Your task to perform on an android device: Empty the shopping cart on ebay.com. Add alienware aurora to the cart on ebay.com Image 0: 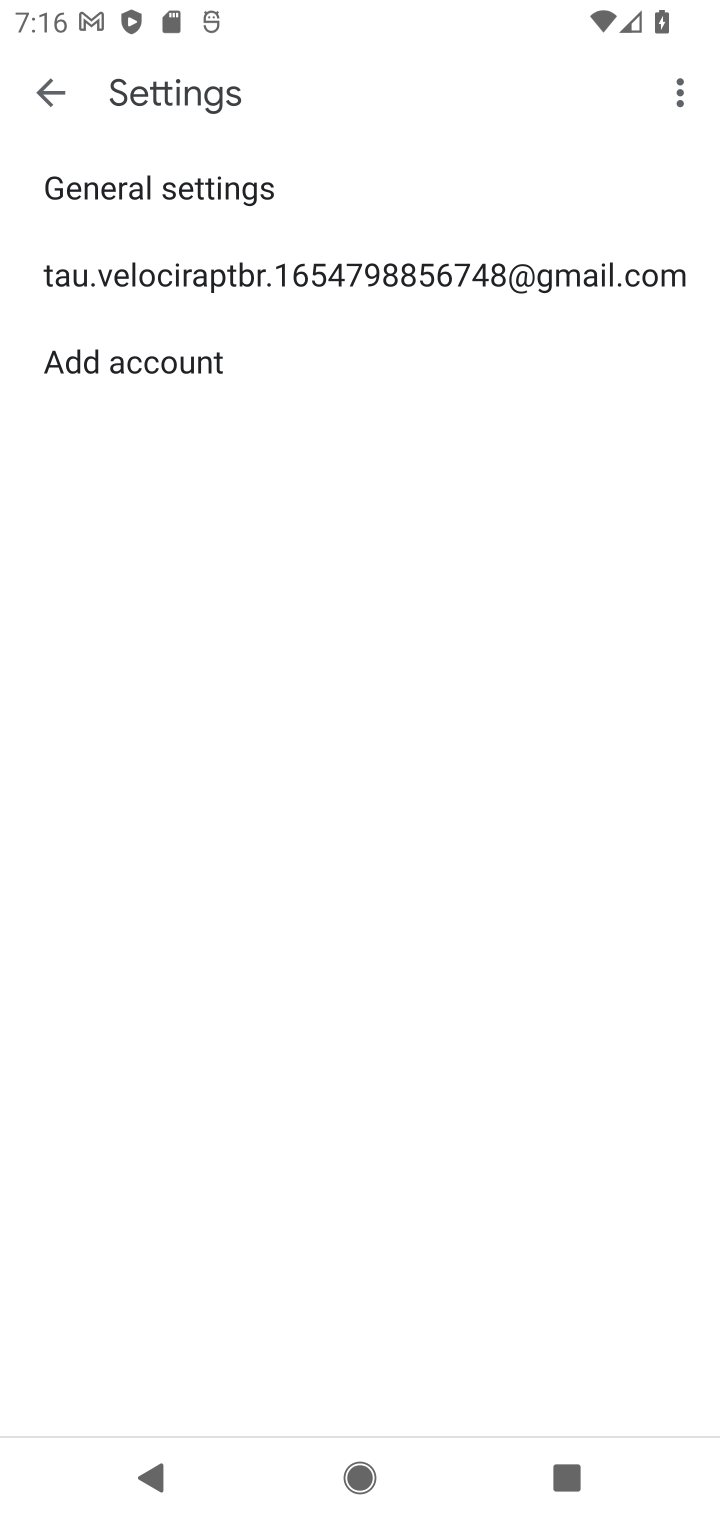
Step 0: press home button
Your task to perform on an android device: Empty the shopping cart on ebay.com. Add alienware aurora to the cart on ebay.com Image 1: 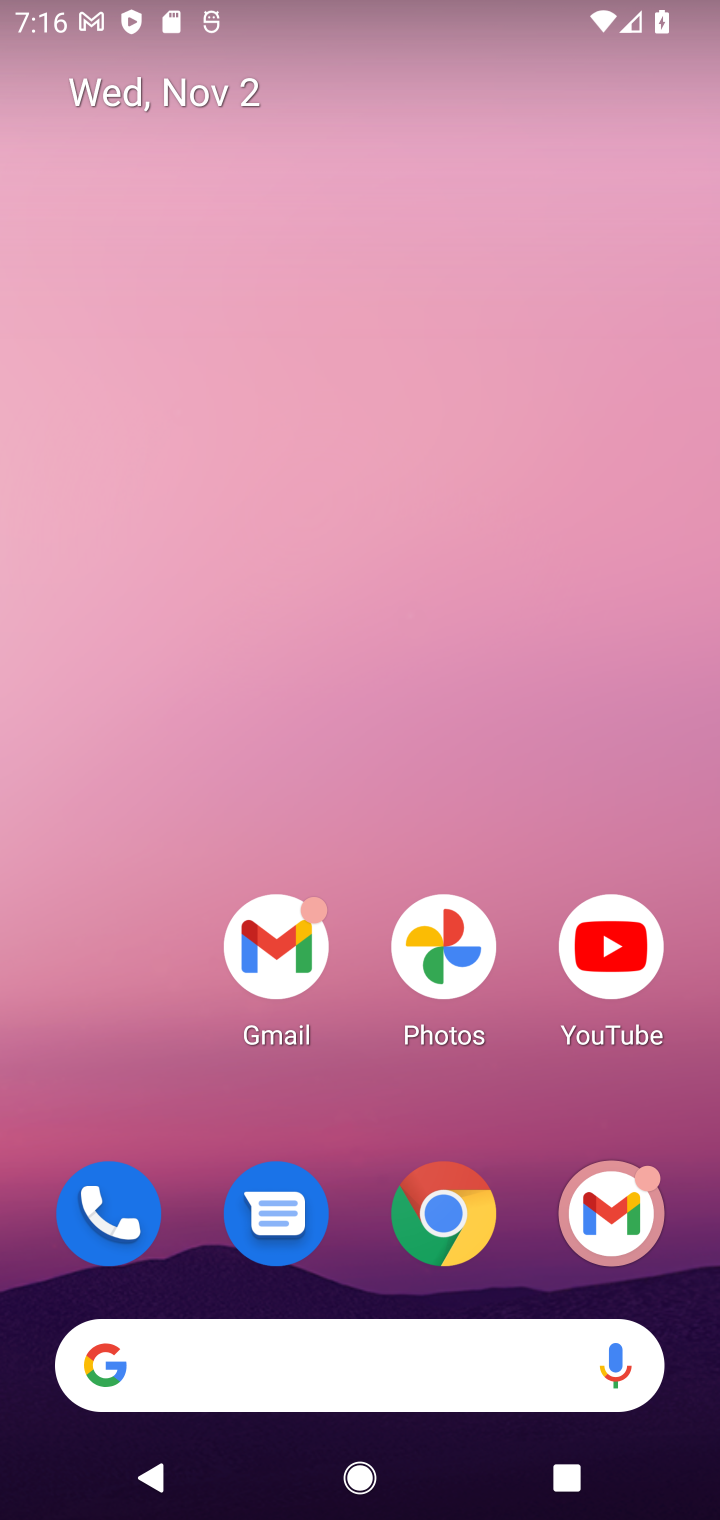
Step 1: click (442, 1221)
Your task to perform on an android device: Empty the shopping cart on ebay.com. Add alienware aurora to the cart on ebay.com Image 2: 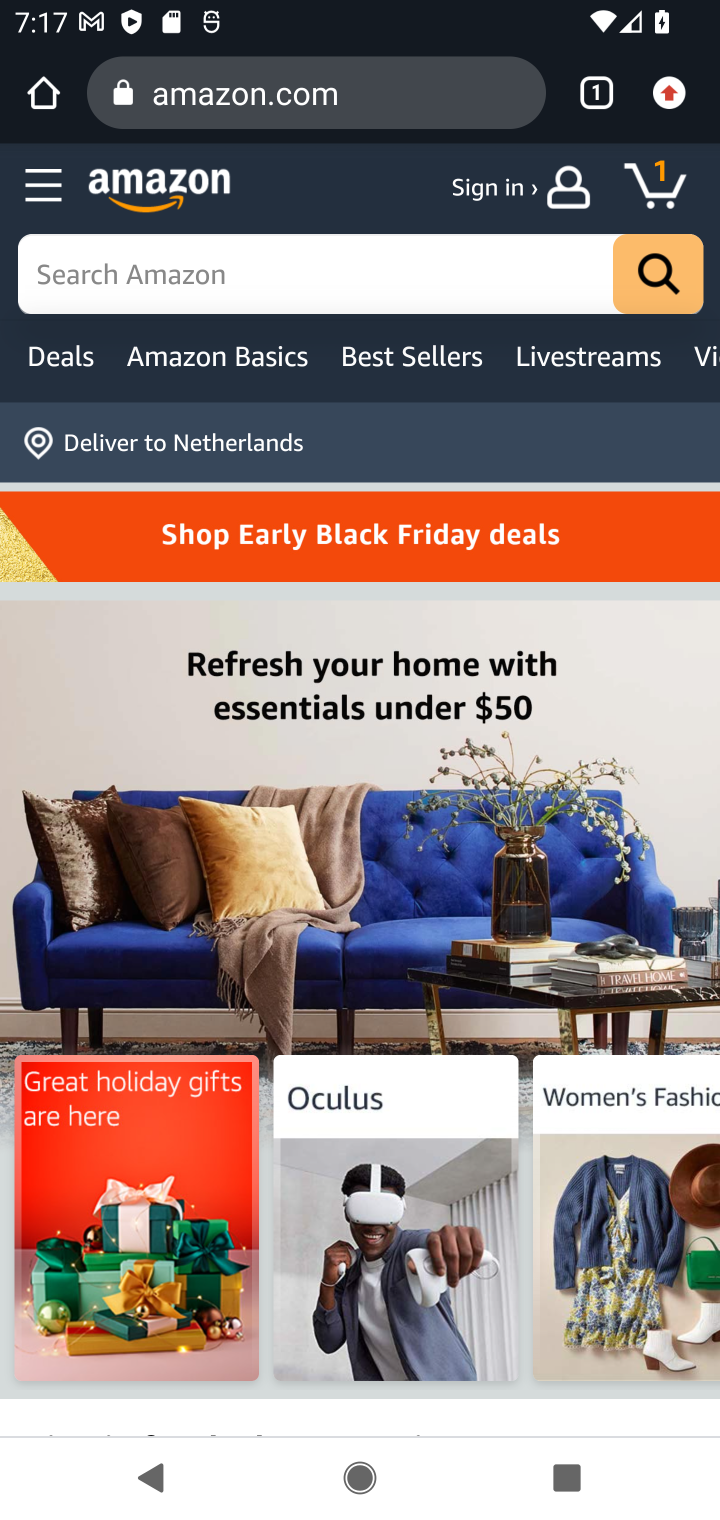
Step 2: click (366, 69)
Your task to perform on an android device: Empty the shopping cart on ebay.com. Add alienware aurora to the cart on ebay.com Image 3: 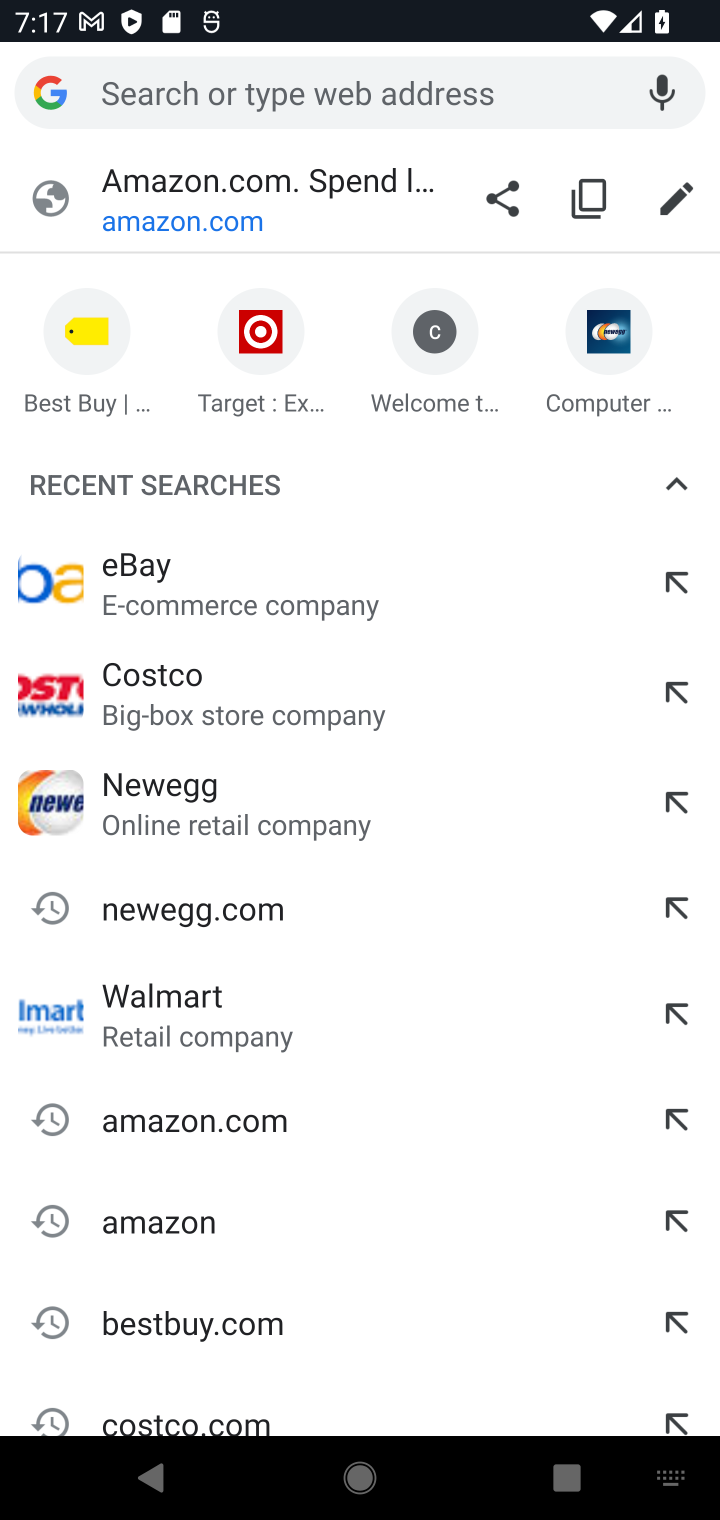
Step 3: type "ebay.com"
Your task to perform on an android device: Empty the shopping cart on ebay.com. Add alienware aurora to the cart on ebay.com Image 4: 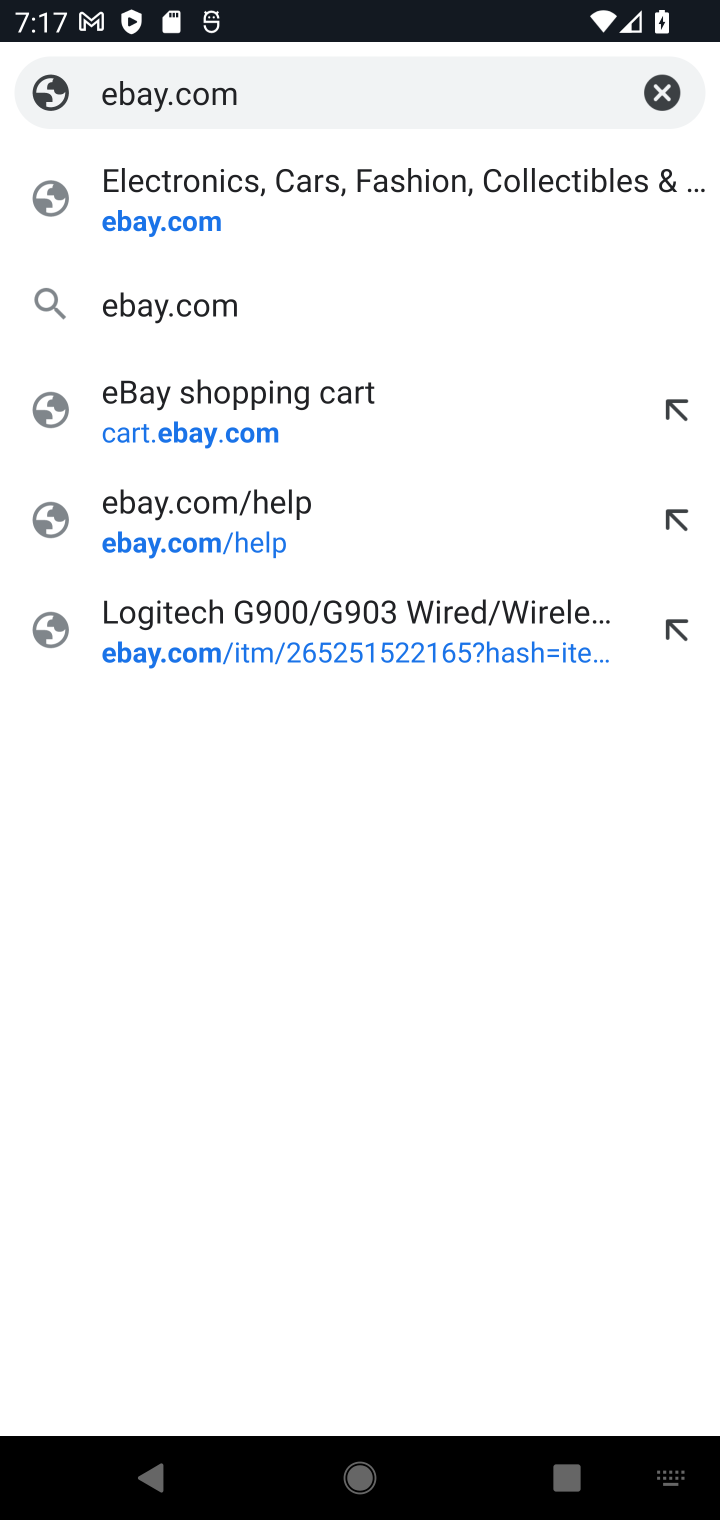
Step 4: click (175, 201)
Your task to perform on an android device: Empty the shopping cart on ebay.com. Add alienware aurora to the cart on ebay.com Image 5: 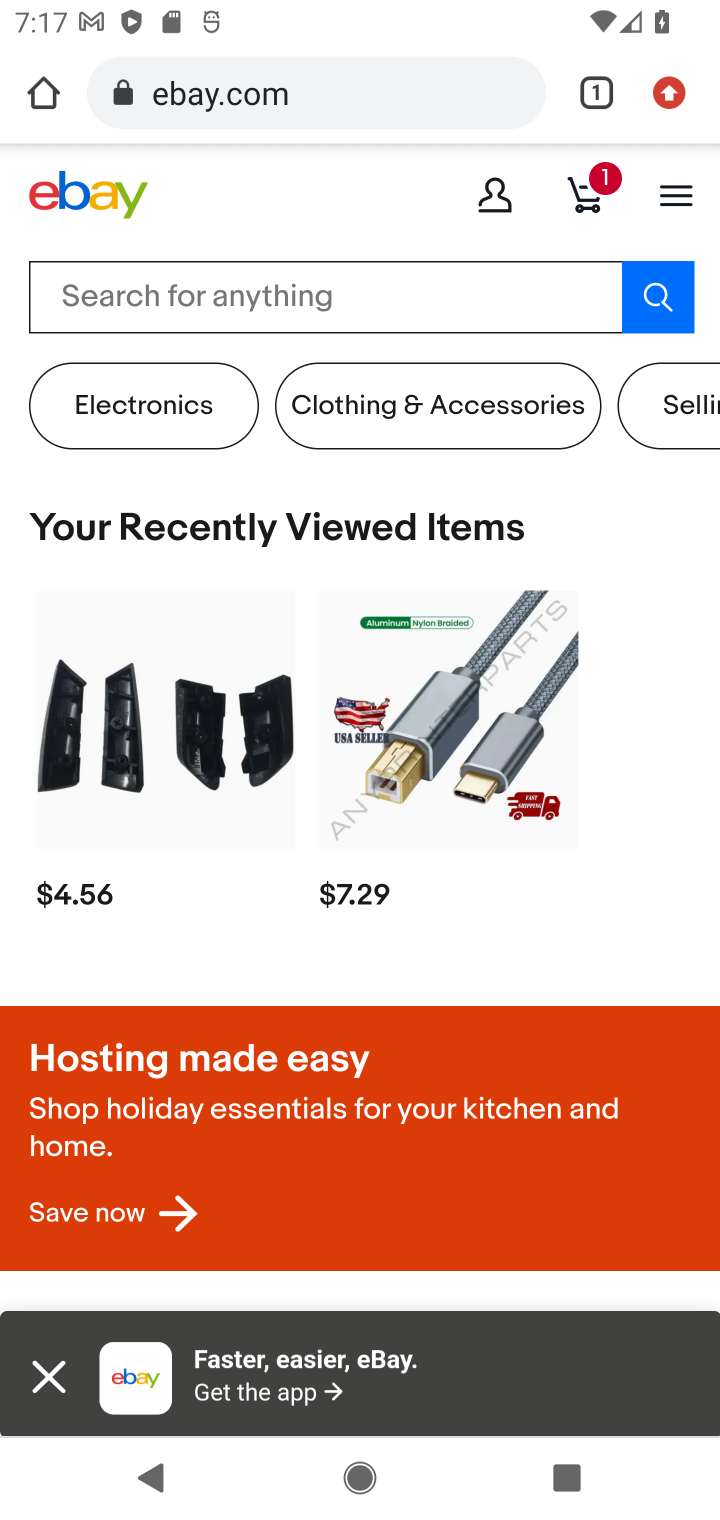
Step 5: click (591, 190)
Your task to perform on an android device: Empty the shopping cart on ebay.com. Add alienware aurora to the cart on ebay.com Image 6: 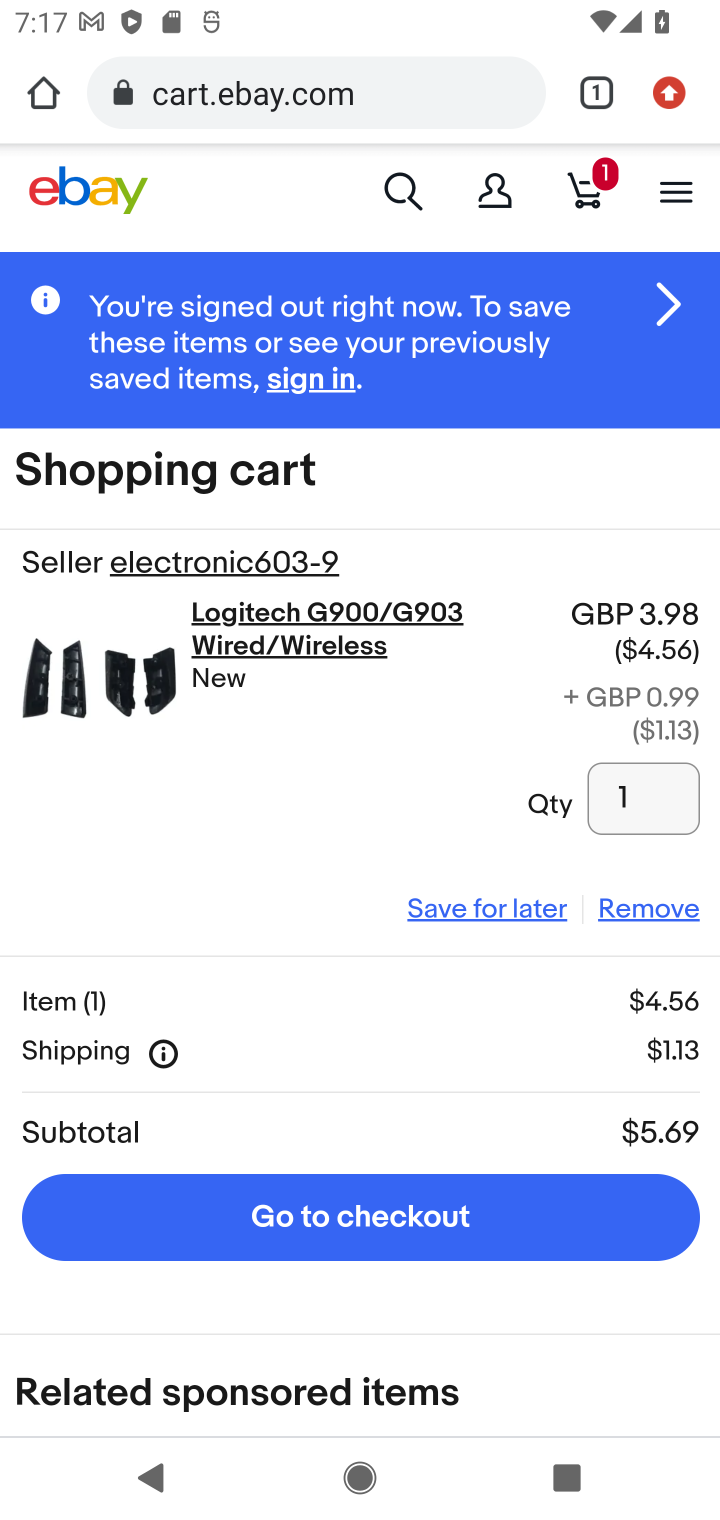
Step 6: click (630, 903)
Your task to perform on an android device: Empty the shopping cart on ebay.com. Add alienware aurora to the cart on ebay.com Image 7: 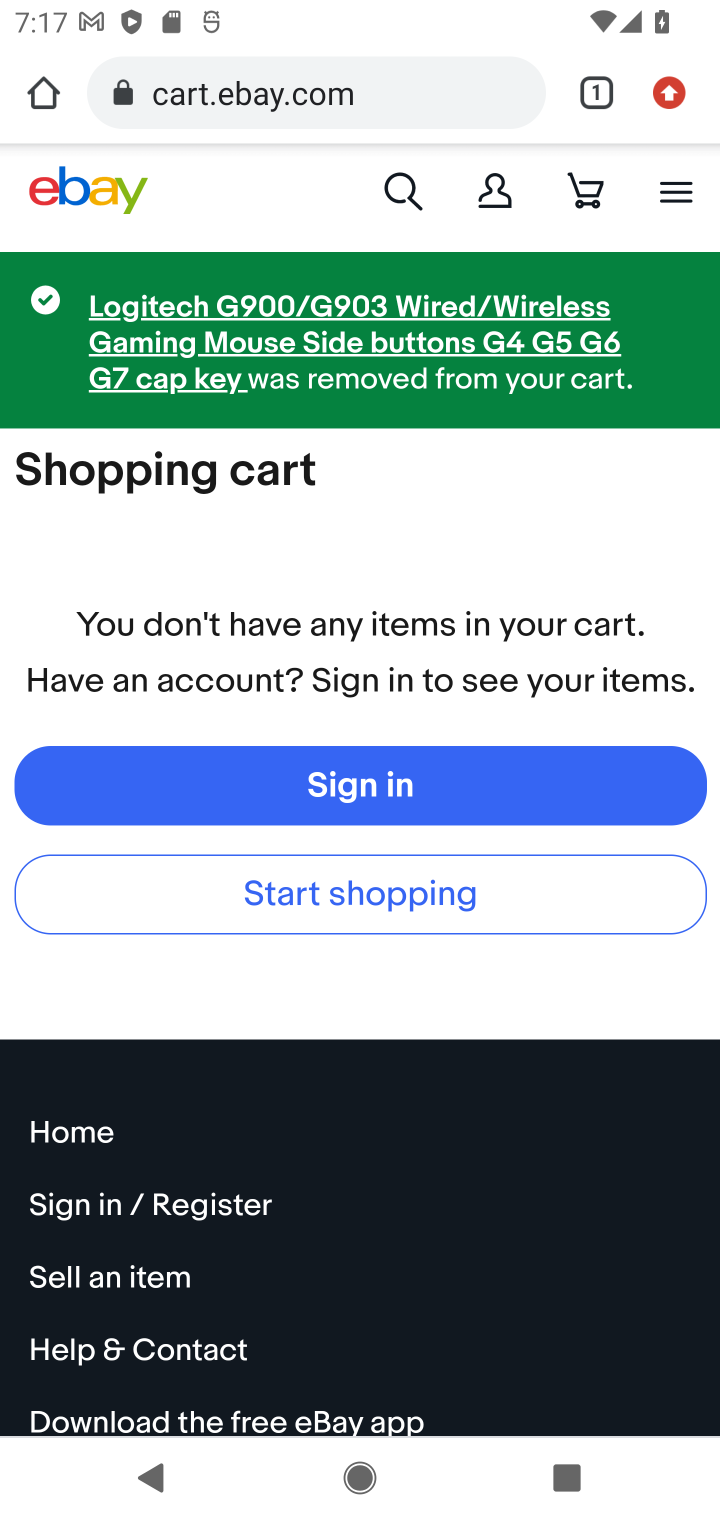
Step 7: click (386, 899)
Your task to perform on an android device: Empty the shopping cart on ebay.com. Add alienware aurora to the cart on ebay.com Image 8: 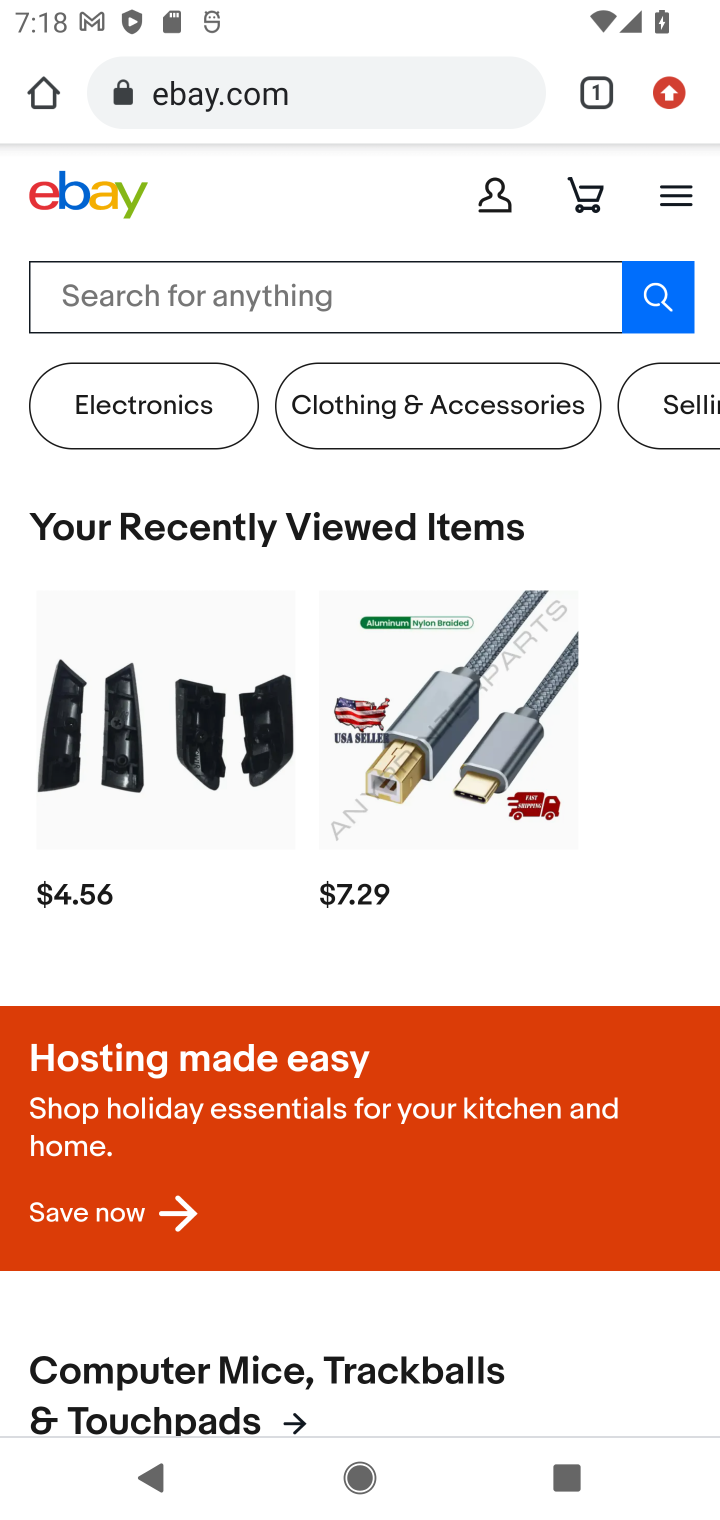
Step 8: click (166, 297)
Your task to perform on an android device: Empty the shopping cart on ebay.com. Add alienware aurora to the cart on ebay.com Image 9: 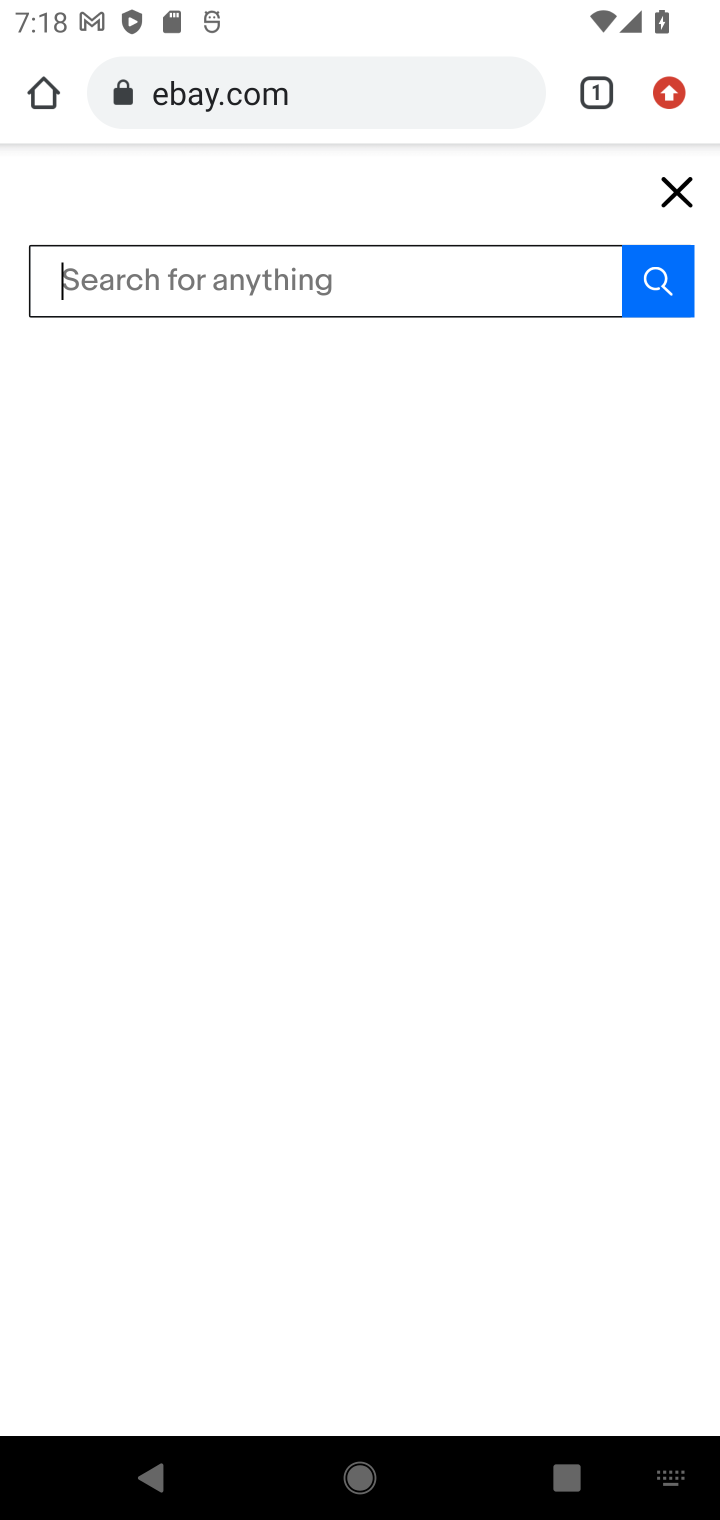
Step 9: type "alienware aurora"
Your task to perform on an android device: Empty the shopping cart on ebay.com. Add alienware aurora to the cart on ebay.com Image 10: 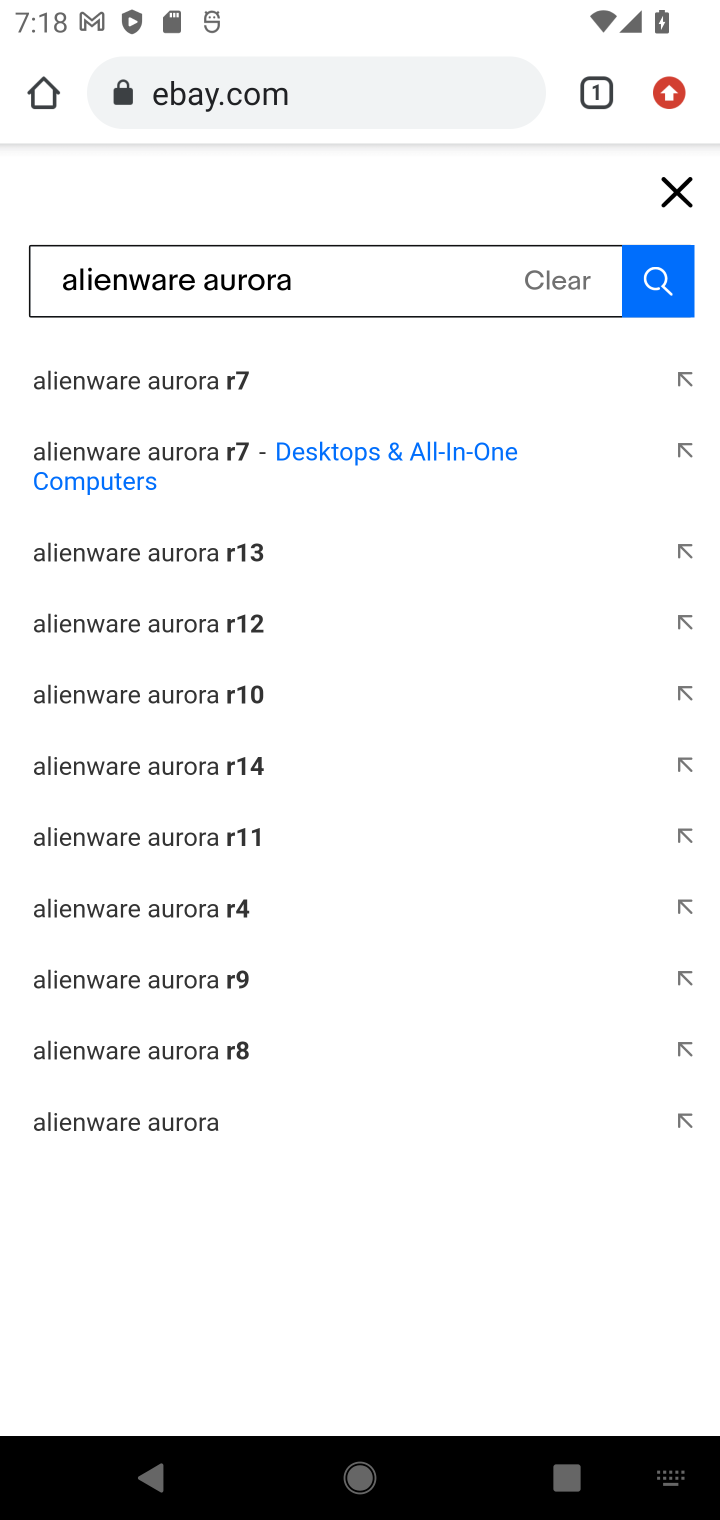
Step 10: click (169, 385)
Your task to perform on an android device: Empty the shopping cart on ebay.com. Add alienware aurora to the cart on ebay.com Image 11: 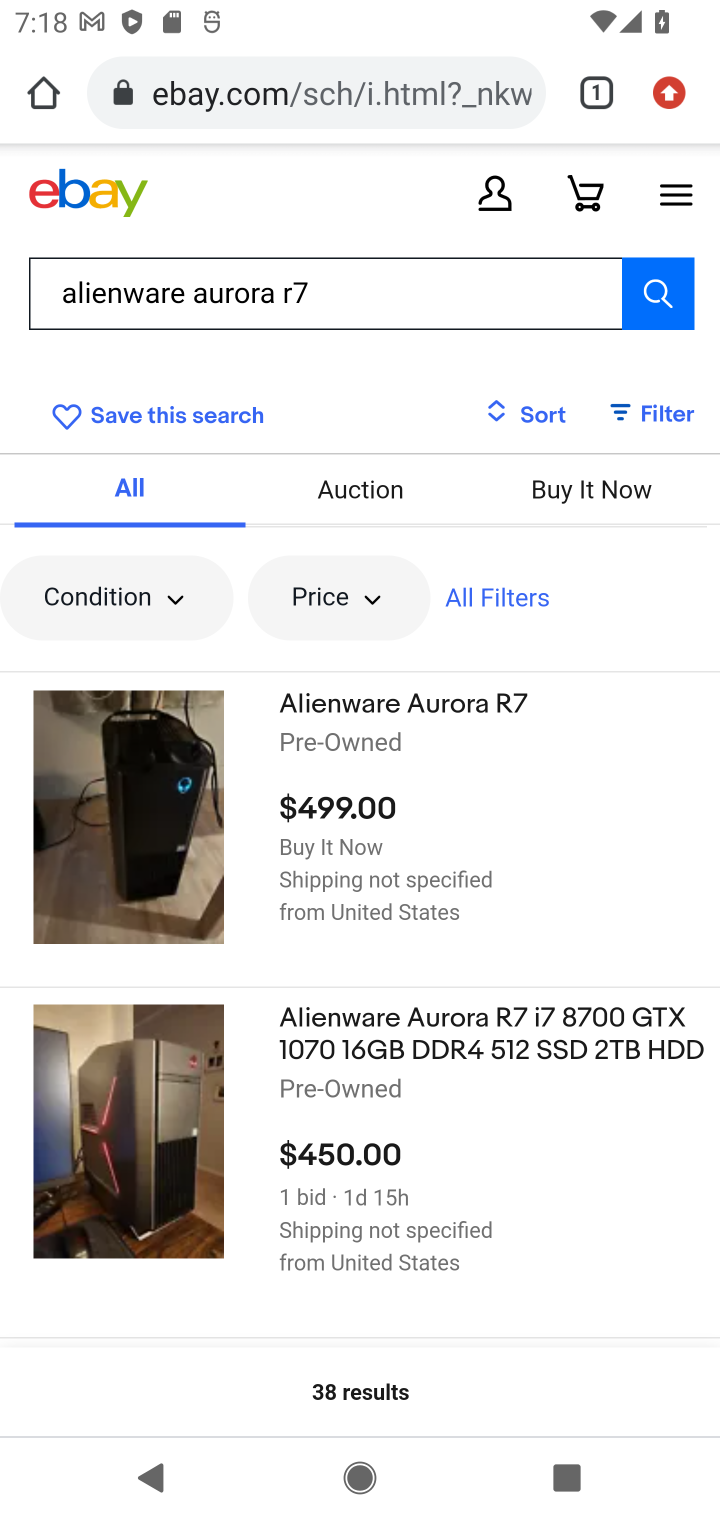
Step 11: click (356, 695)
Your task to perform on an android device: Empty the shopping cart on ebay.com. Add alienware aurora to the cart on ebay.com Image 12: 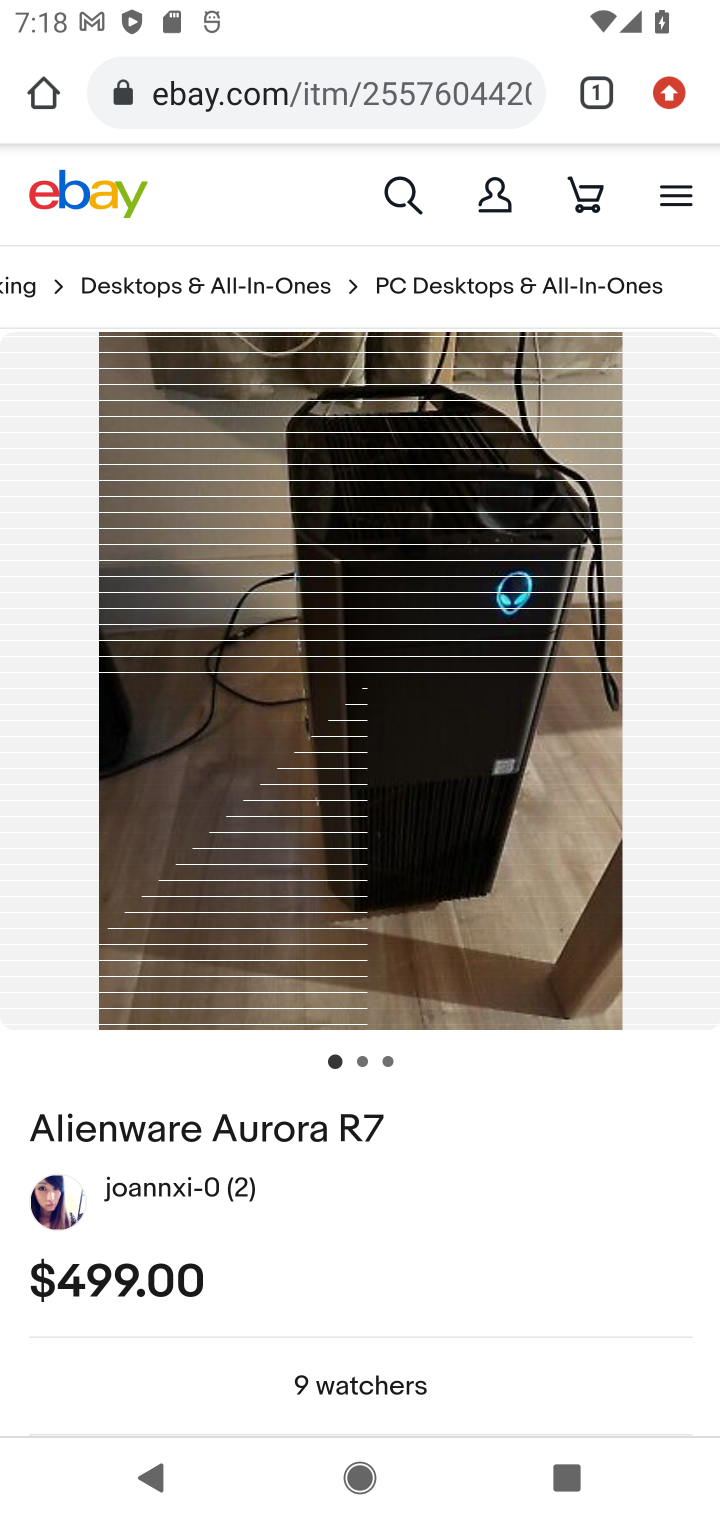
Step 12: drag from (463, 1272) to (428, 381)
Your task to perform on an android device: Empty the shopping cart on ebay.com. Add alienware aurora to the cart on ebay.com Image 13: 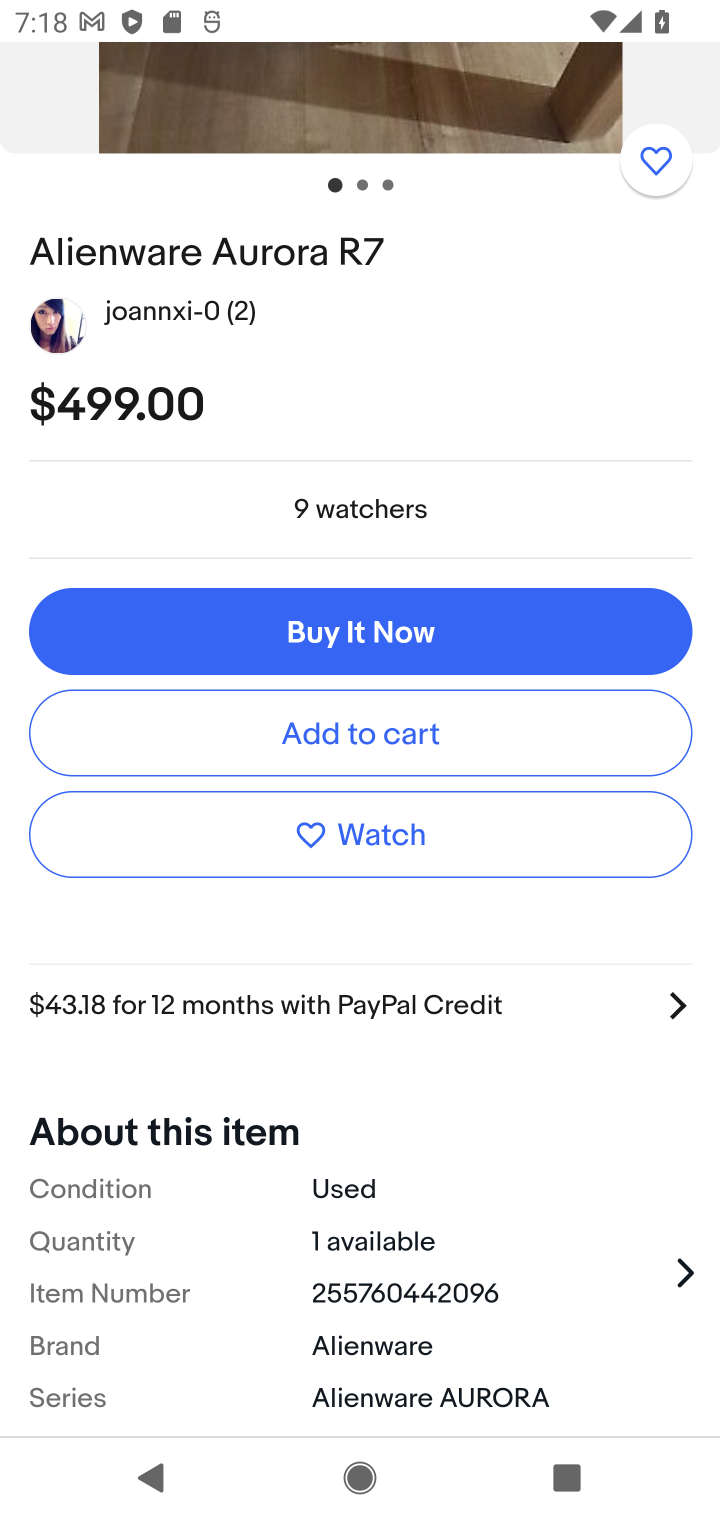
Step 13: click (313, 721)
Your task to perform on an android device: Empty the shopping cart on ebay.com. Add alienware aurora to the cart on ebay.com Image 14: 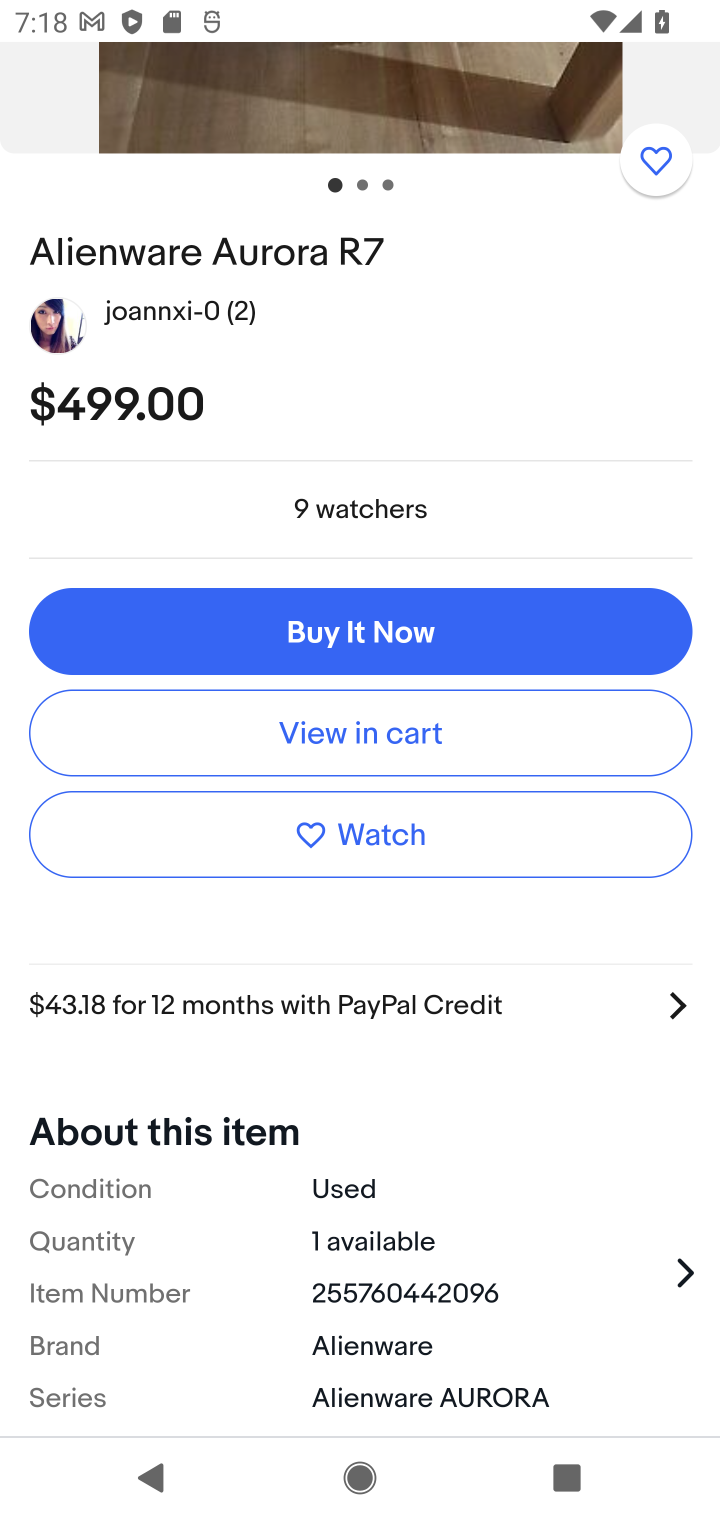
Step 14: task complete